Your task to perform on an android device: Go to accessibility settings Image 0: 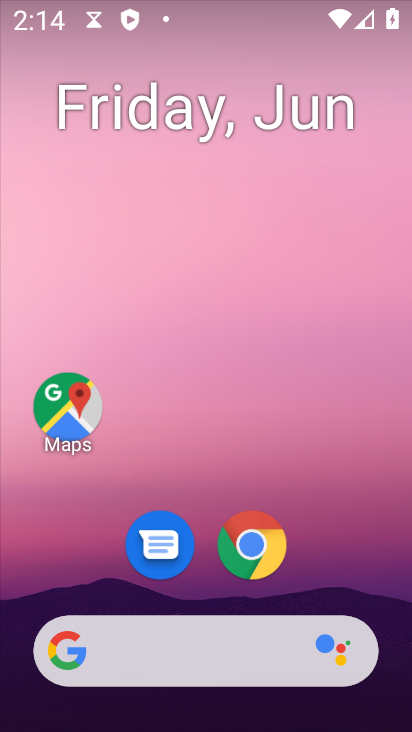
Step 0: drag from (208, 605) to (284, 8)
Your task to perform on an android device: Go to accessibility settings Image 1: 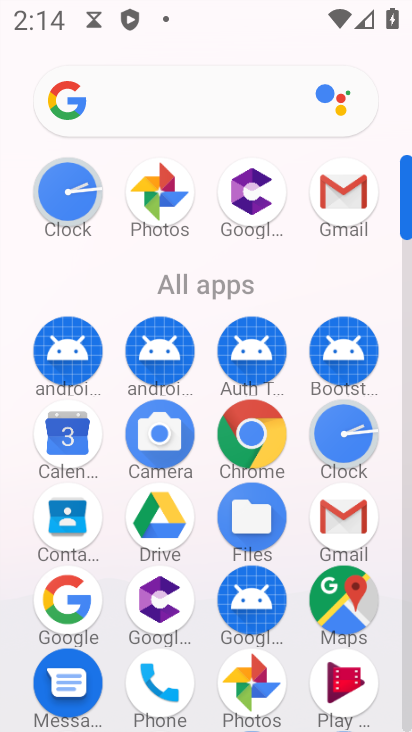
Step 1: drag from (279, 577) to (318, 44)
Your task to perform on an android device: Go to accessibility settings Image 2: 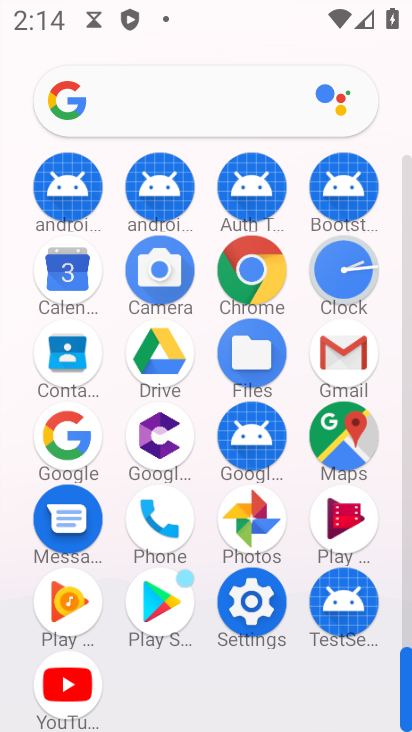
Step 2: click (249, 625)
Your task to perform on an android device: Go to accessibility settings Image 3: 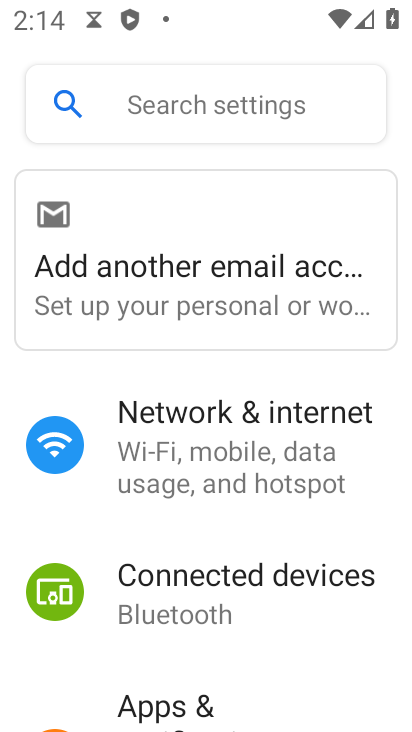
Step 3: drag from (256, 645) to (336, 302)
Your task to perform on an android device: Go to accessibility settings Image 4: 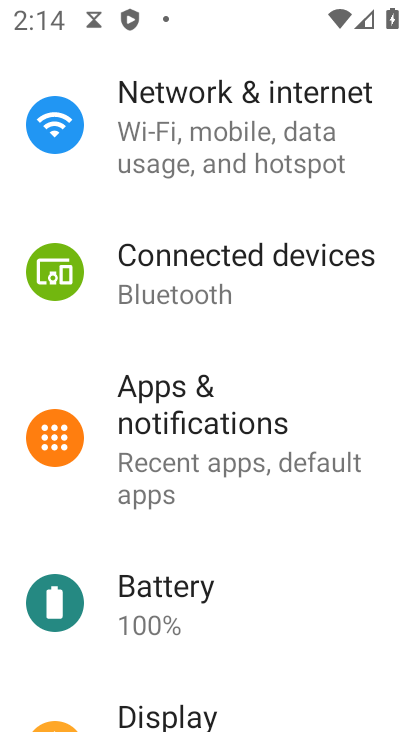
Step 4: drag from (270, 531) to (313, 263)
Your task to perform on an android device: Go to accessibility settings Image 5: 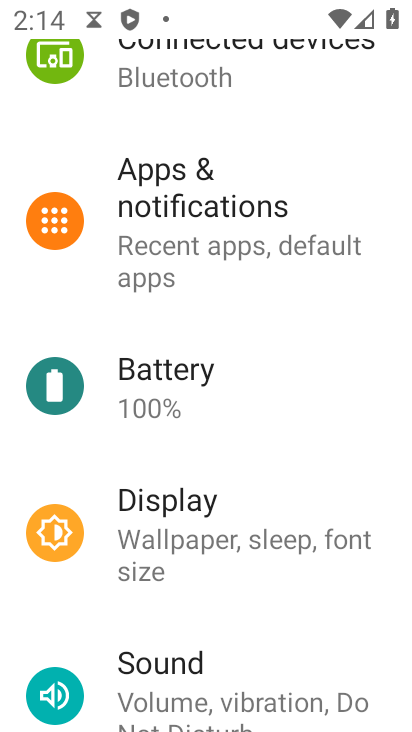
Step 5: drag from (245, 587) to (261, 182)
Your task to perform on an android device: Go to accessibility settings Image 6: 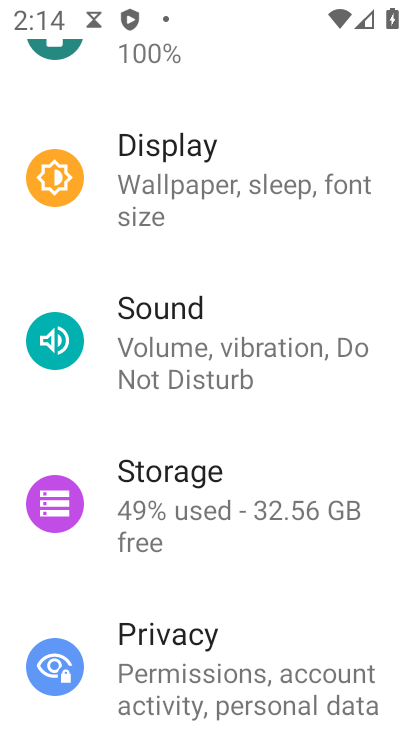
Step 6: drag from (221, 642) to (262, 178)
Your task to perform on an android device: Go to accessibility settings Image 7: 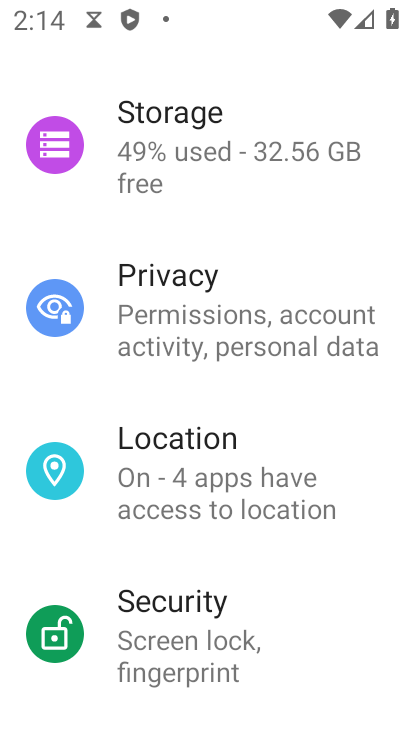
Step 7: drag from (176, 560) to (188, 162)
Your task to perform on an android device: Go to accessibility settings Image 8: 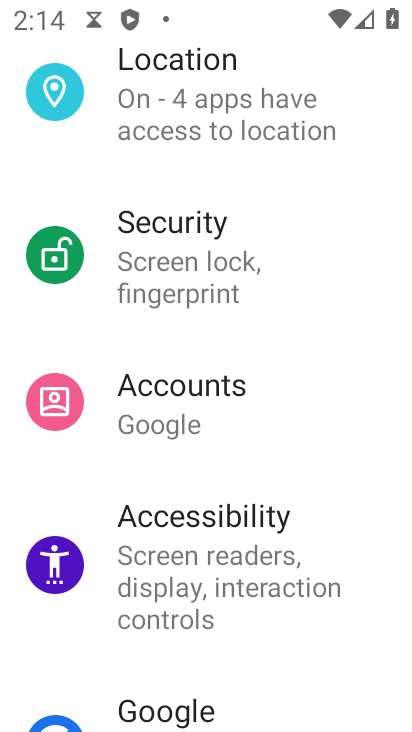
Step 8: click (188, 540)
Your task to perform on an android device: Go to accessibility settings Image 9: 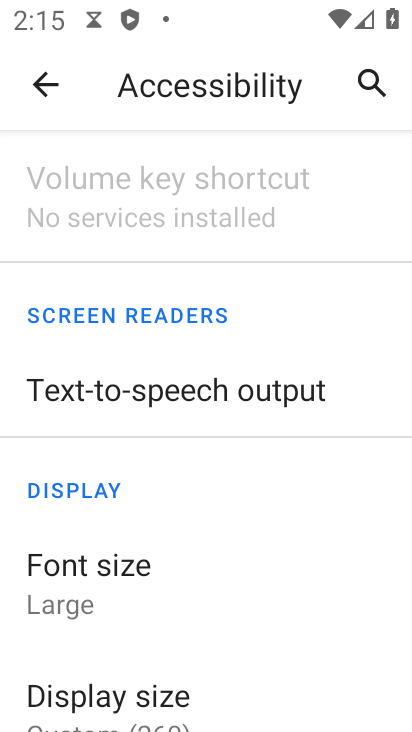
Step 9: task complete